Your task to perform on an android device: Open calendar and show me the fourth week of next month Image 0: 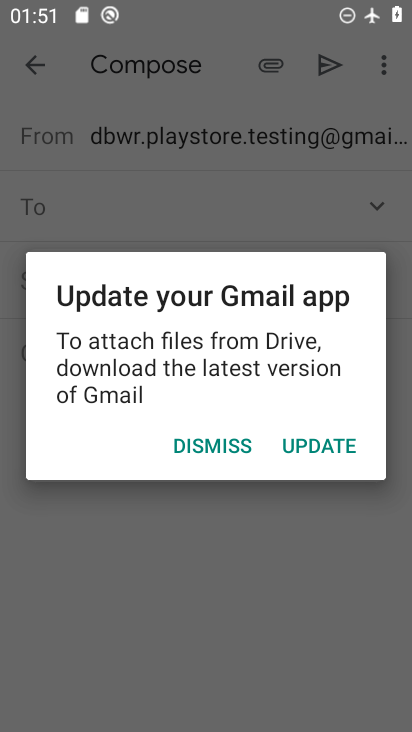
Step 0: press home button
Your task to perform on an android device: Open calendar and show me the fourth week of next month Image 1: 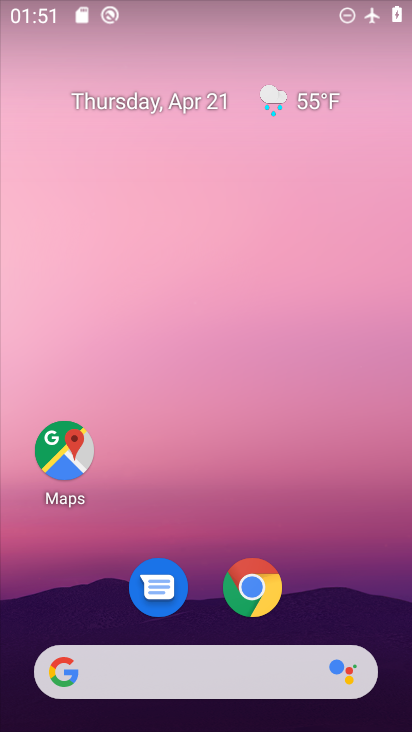
Step 1: drag from (360, 595) to (327, 247)
Your task to perform on an android device: Open calendar and show me the fourth week of next month Image 2: 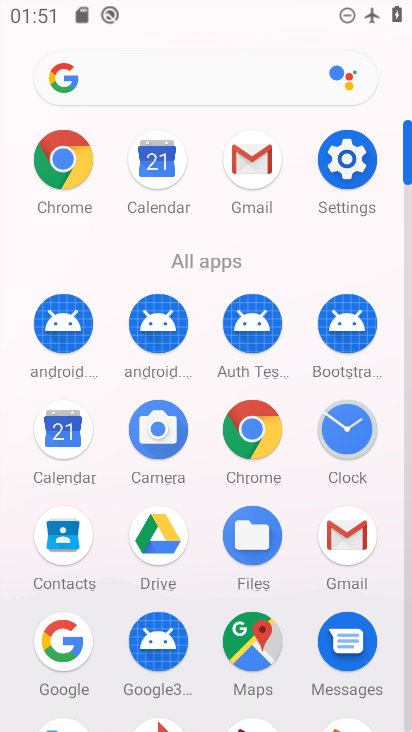
Step 2: click (410, 688)
Your task to perform on an android device: Open calendar and show me the fourth week of next month Image 3: 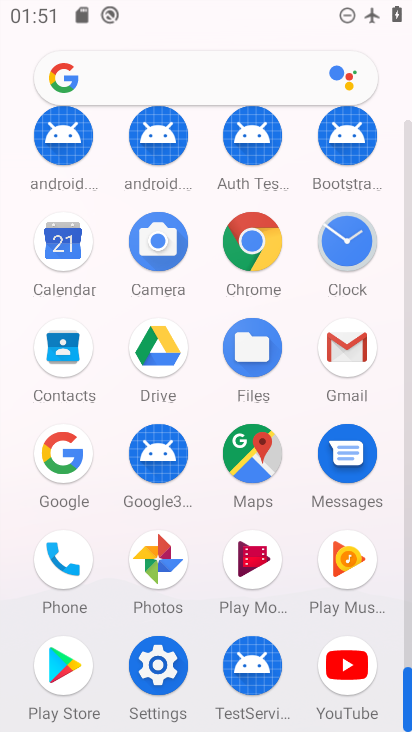
Step 3: click (60, 246)
Your task to perform on an android device: Open calendar and show me the fourth week of next month Image 4: 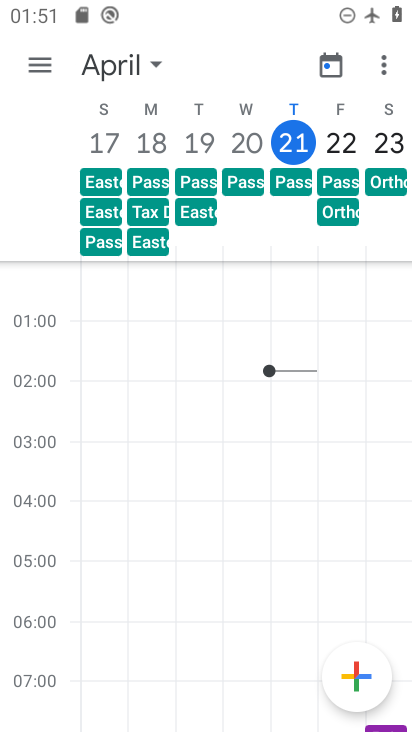
Step 4: click (170, 71)
Your task to perform on an android device: Open calendar and show me the fourth week of next month Image 5: 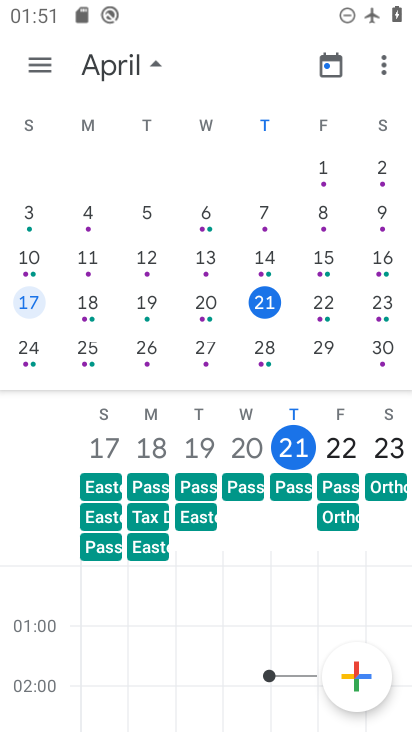
Step 5: drag from (382, 278) to (115, 247)
Your task to perform on an android device: Open calendar and show me the fourth week of next month Image 6: 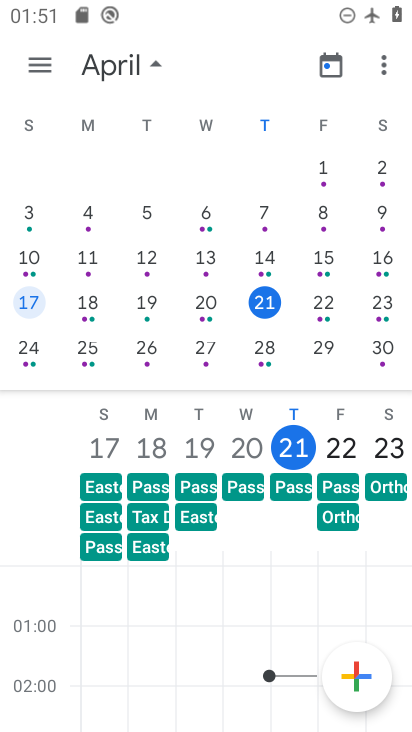
Step 6: drag from (390, 252) to (0, 237)
Your task to perform on an android device: Open calendar and show me the fourth week of next month Image 7: 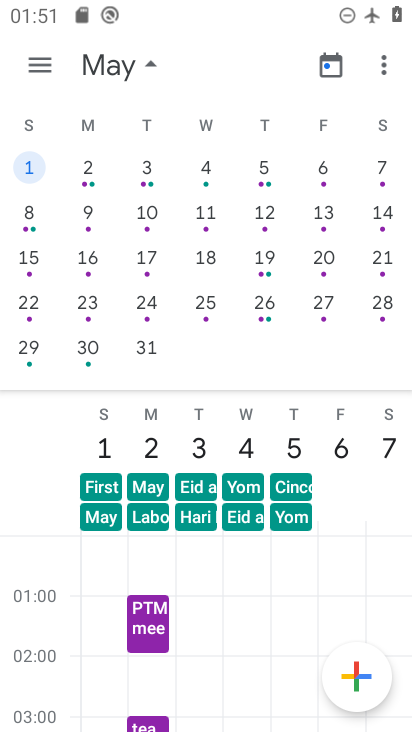
Step 7: click (18, 302)
Your task to perform on an android device: Open calendar and show me the fourth week of next month Image 8: 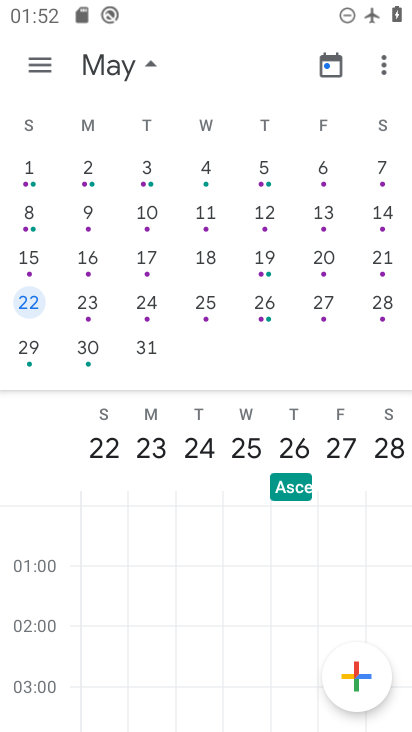
Step 8: task complete